Your task to perform on an android device: Open Amazon Image 0: 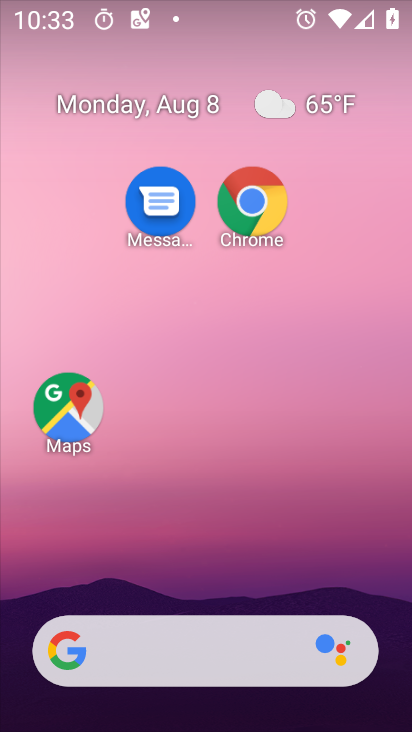
Step 0: drag from (253, 582) to (270, 44)
Your task to perform on an android device: Open Amazon Image 1: 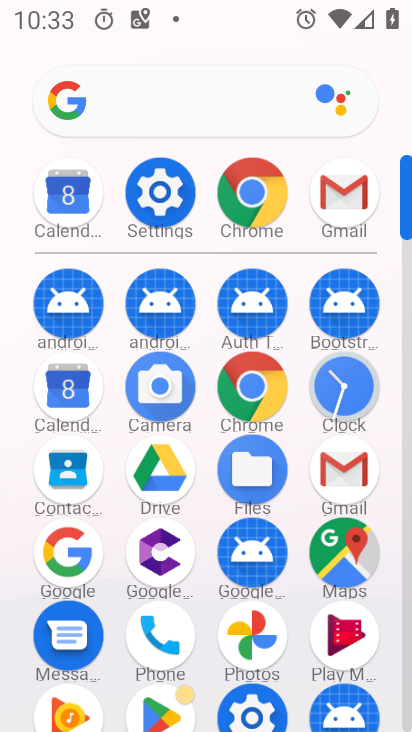
Step 1: click (249, 377)
Your task to perform on an android device: Open Amazon Image 2: 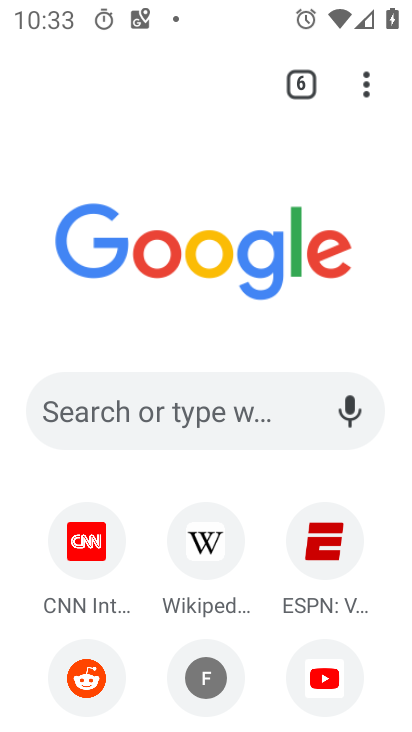
Step 2: click (148, 405)
Your task to perform on an android device: Open Amazon Image 3: 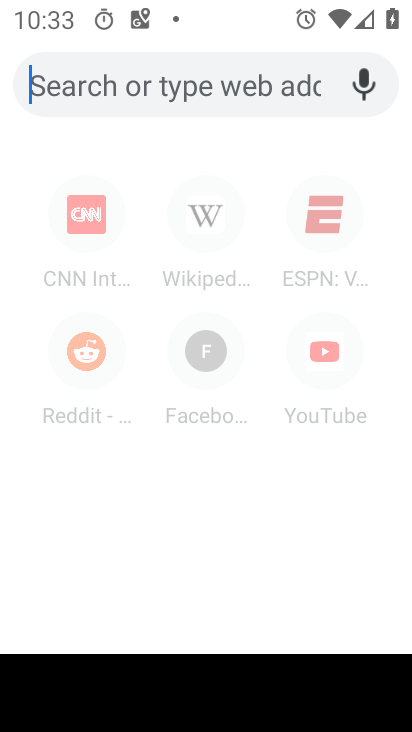
Step 3: type "amazon"
Your task to perform on an android device: Open Amazon Image 4: 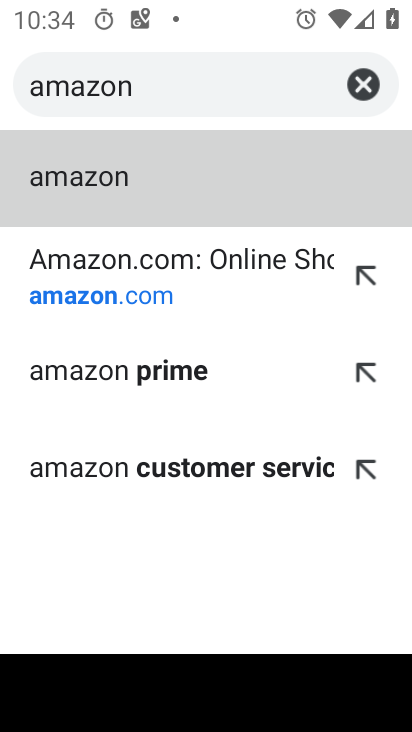
Step 4: click (204, 294)
Your task to perform on an android device: Open Amazon Image 5: 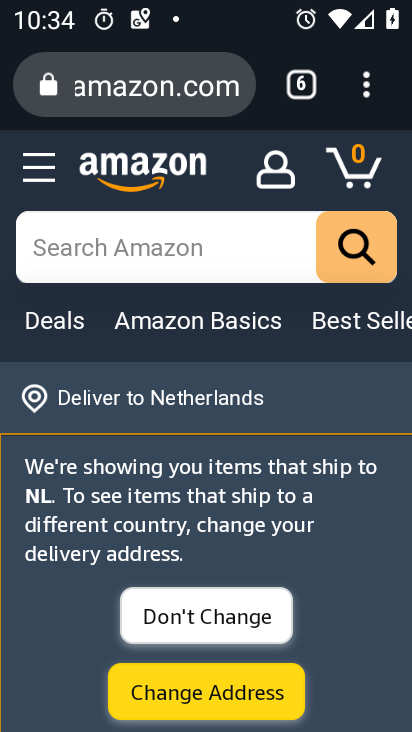
Step 5: click (193, 620)
Your task to perform on an android device: Open Amazon Image 6: 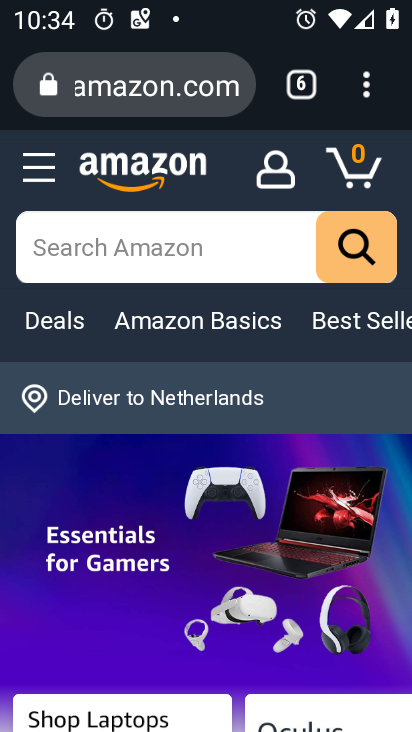
Step 6: task complete